Your task to perform on an android device: toggle priority inbox in the gmail app Image 0: 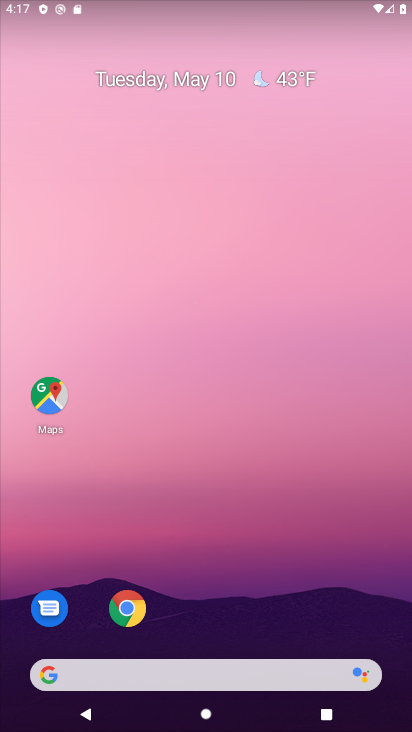
Step 0: drag from (251, 603) to (62, 2)
Your task to perform on an android device: toggle priority inbox in the gmail app Image 1: 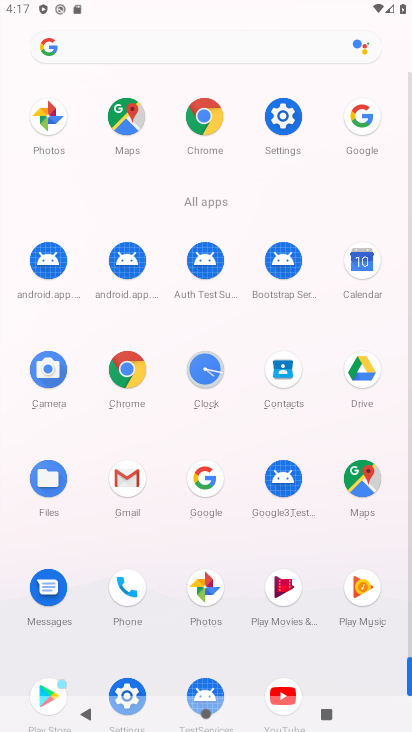
Step 1: click (127, 484)
Your task to perform on an android device: toggle priority inbox in the gmail app Image 2: 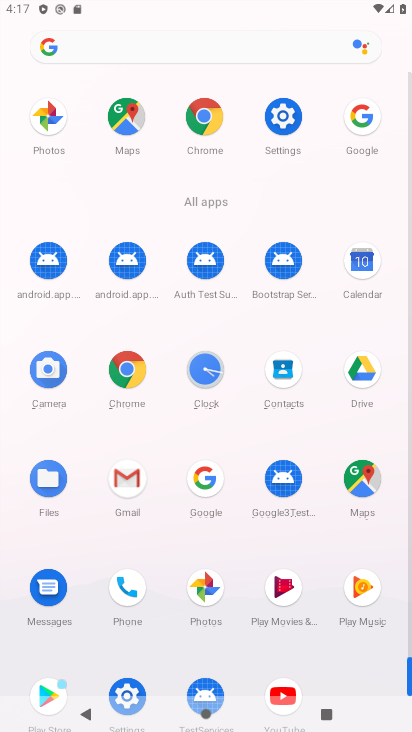
Step 2: click (127, 484)
Your task to perform on an android device: toggle priority inbox in the gmail app Image 3: 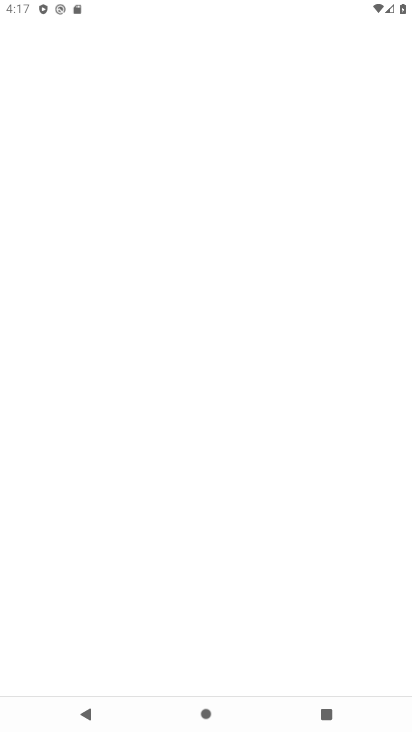
Step 3: click (124, 481)
Your task to perform on an android device: toggle priority inbox in the gmail app Image 4: 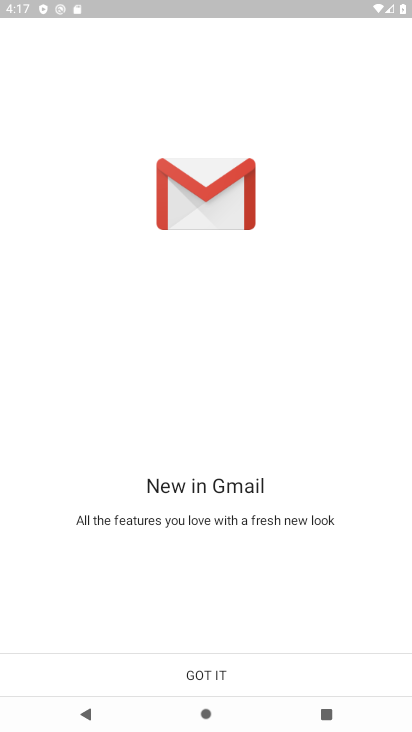
Step 4: click (212, 658)
Your task to perform on an android device: toggle priority inbox in the gmail app Image 5: 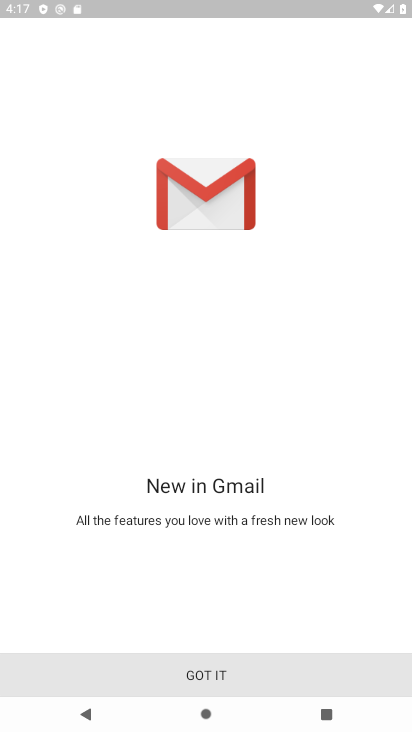
Step 5: click (211, 670)
Your task to perform on an android device: toggle priority inbox in the gmail app Image 6: 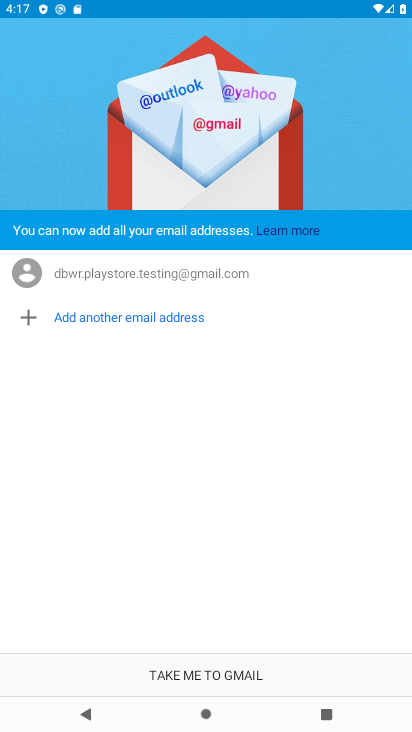
Step 6: click (211, 670)
Your task to perform on an android device: toggle priority inbox in the gmail app Image 7: 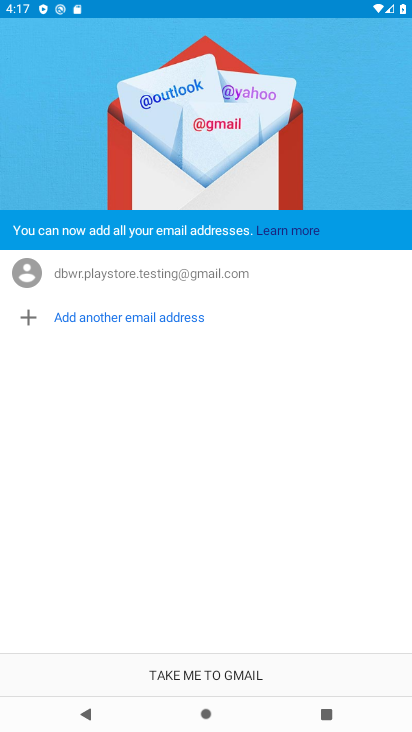
Step 7: click (212, 671)
Your task to perform on an android device: toggle priority inbox in the gmail app Image 8: 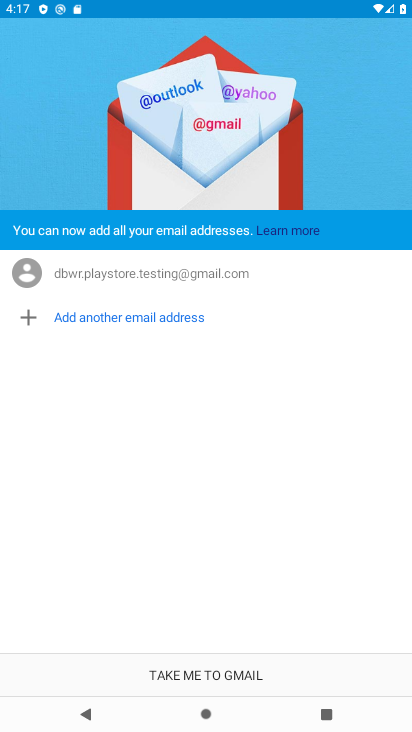
Step 8: click (213, 671)
Your task to perform on an android device: toggle priority inbox in the gmail app Image 9: 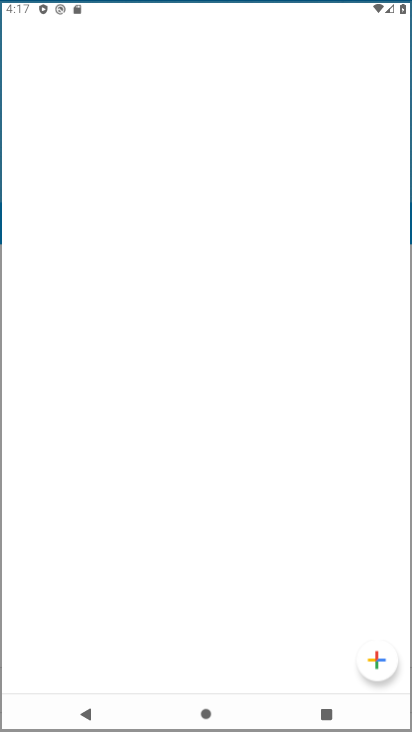
Step 9: click (213, 671)
Your task to perform on an android device: toggle priority inbox in the gmail app Image 10: 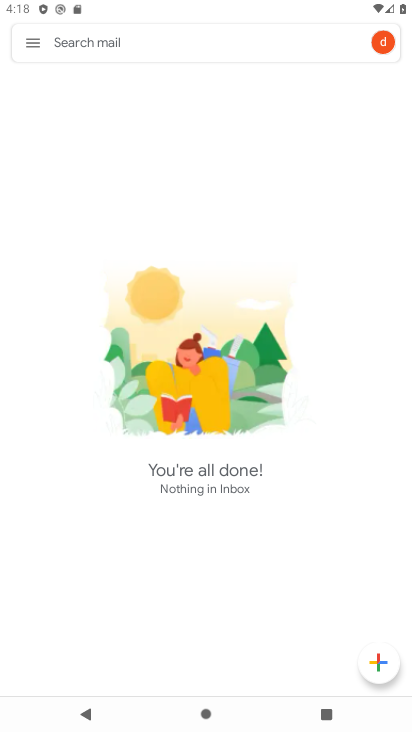
Step 10: click (208, 449)
Your task to perform on an android device: toggle priority inbox in the gmail app Image 11: 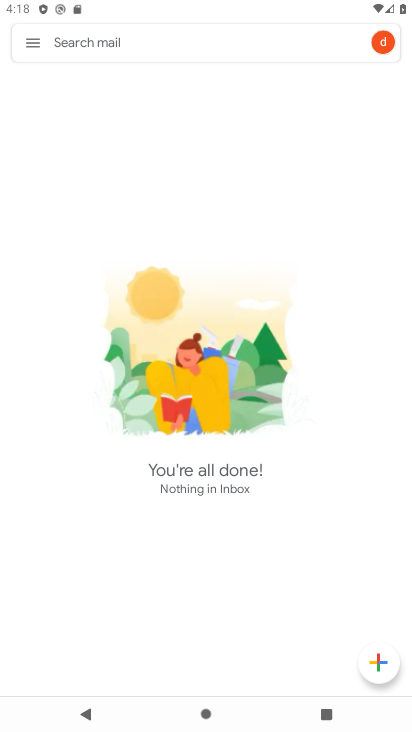
Step 11: click (206, 466)
Your task to perform on an android device: toggle priority inbox in the gmail app Image 12: 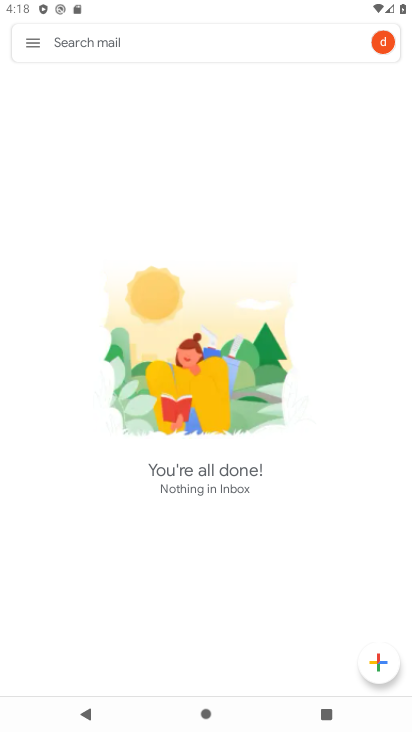
Step 12: click (205, 468)
Your task to perform on an android device: toggle priority inbox in the gmail app Image 13: 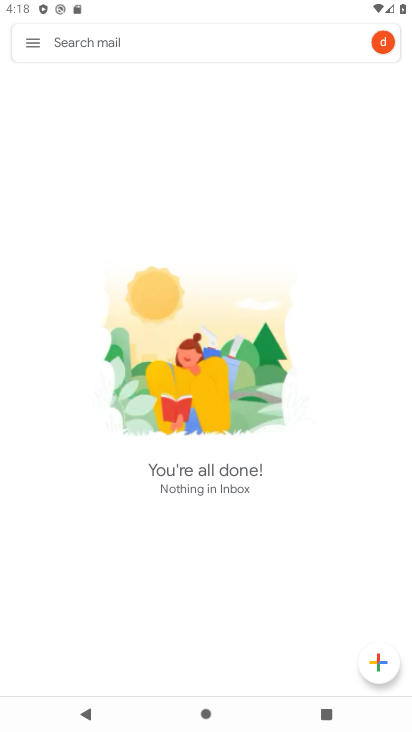
Step 13: click (205, 468)
Your task to perform on an android device: toggle priority inbox in the gmail app Image 14: 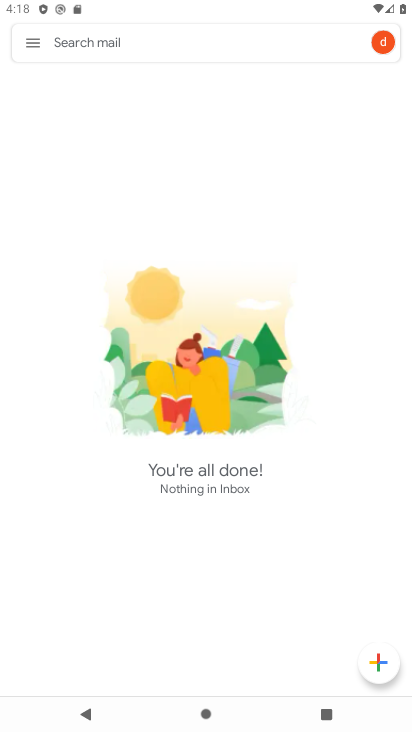
Step 14: click (205, 468)
Your task to perform on an android device: toggle priority inbox in the gmail app Image 15: 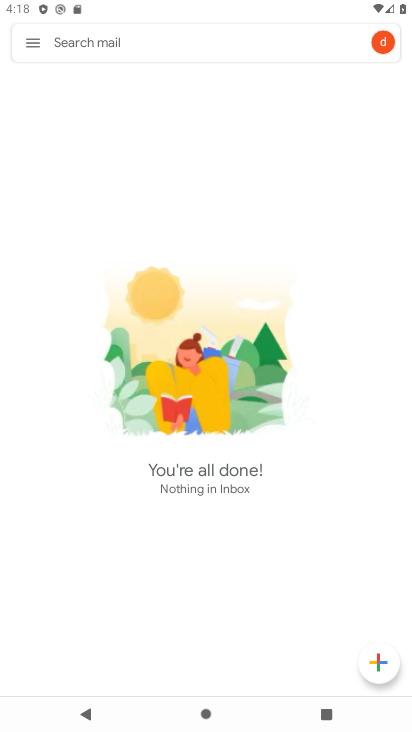
Step 15: click (206, 468)
Your task to perform on an android device: toggle priority inbox in the gmail app Image 16: 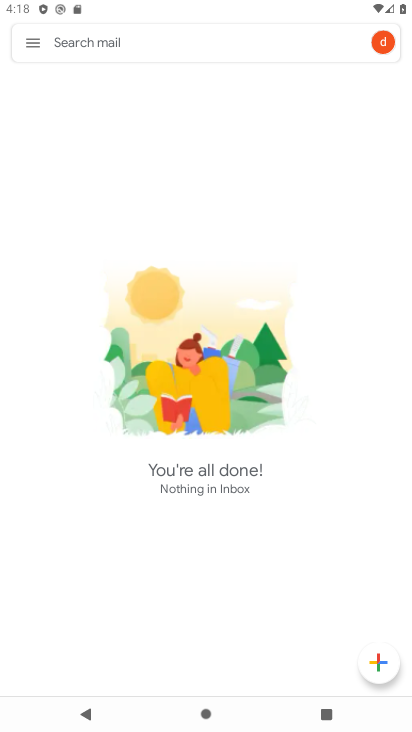
Step 16: click (31, 46)
Your task to perform on an android device: toggle priority inbox in the gmail app Image 17: 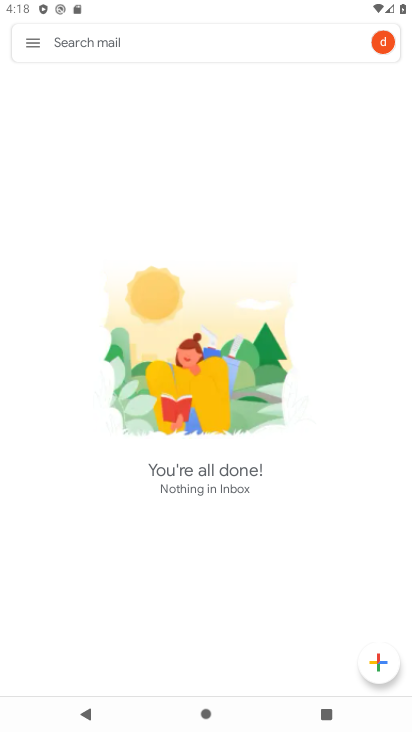
Step 17: click (31, 48)
Your task to perform on an android device: toggle priority inbox in the gmail app Image 18: 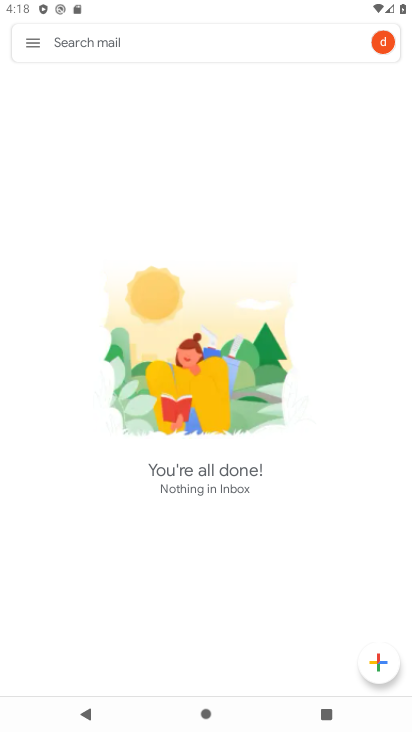
Step 18: click (32, 49)
Your task to perform on an android device: toggle priority inbox in the gmail app Image 19: 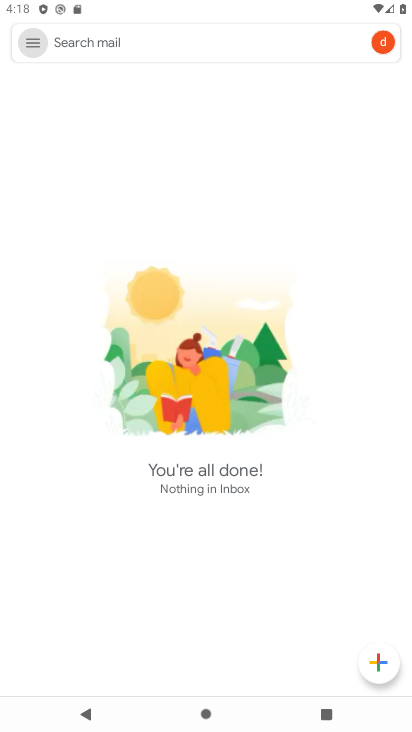
Step 19: click (32, 50)
Your task to perform on an android device: toggle priority inbox in the gmail app Image 20: 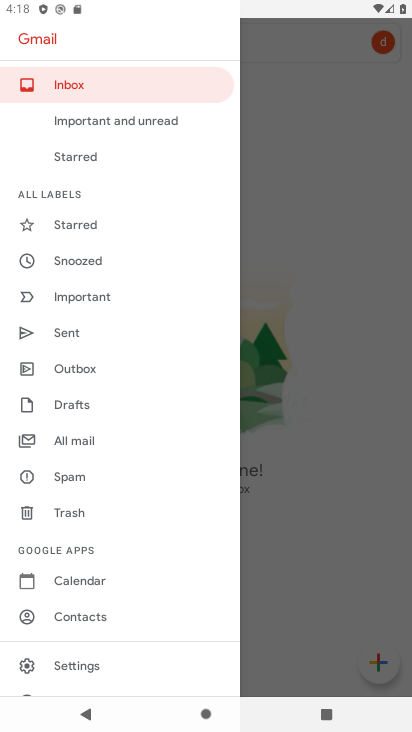
Step 20: click (72, 668)
Your task to perform on an android device: toggle priority inbox in the gmail app Image 21: 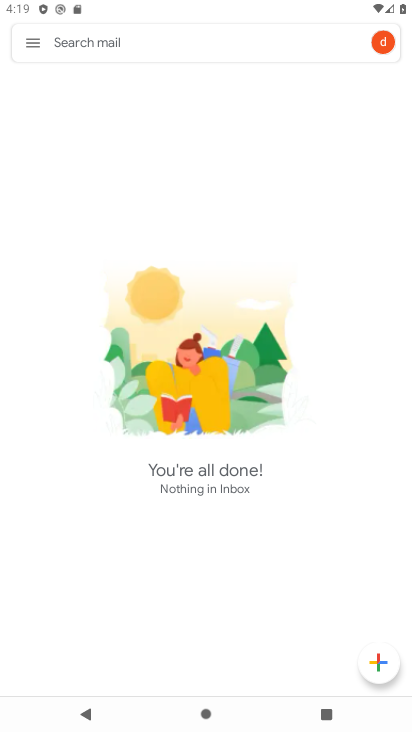
Step 21: click (71, 668)
Your task to perform on an android device: toggle priority inbox in the gmail app Image 22: 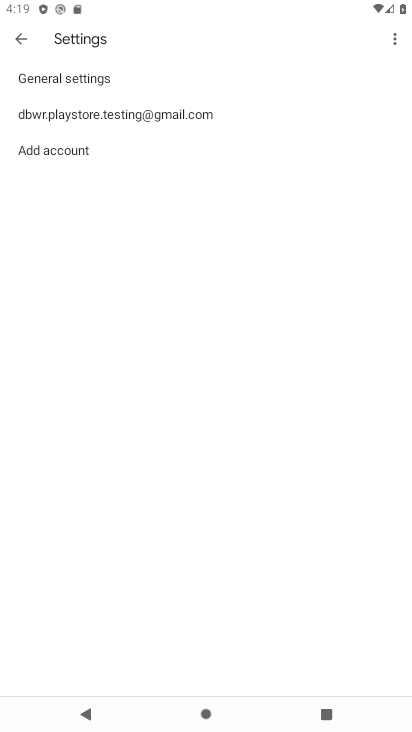
Step 22: click (108, 113)
Your task to perform on an android device: toggle priority inbox in the gmail app Image 23: 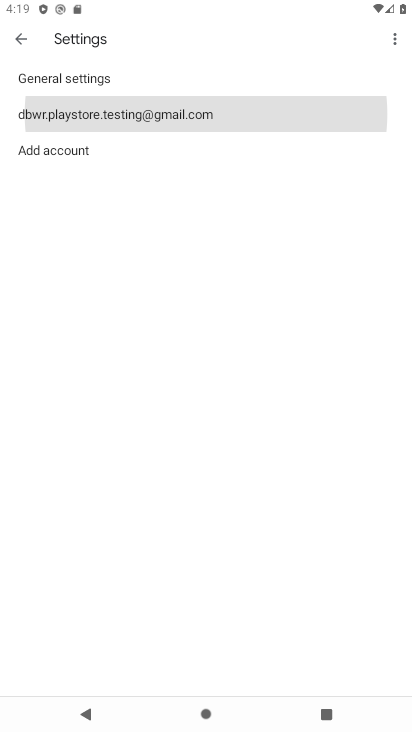
Step 23: click (111, 112)
Your task to perform on an android device: toggle priority inbox in the gmail app Image 24: 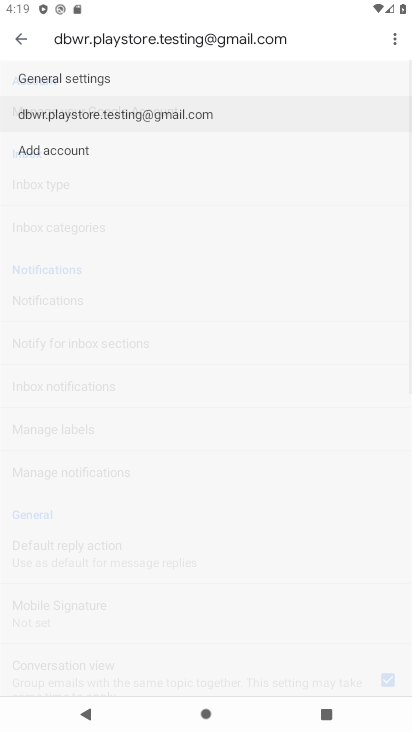
Step 24: click (111, 112)
Your task to perform on an android device: toggle priority inbox in the gmail app Image 25: 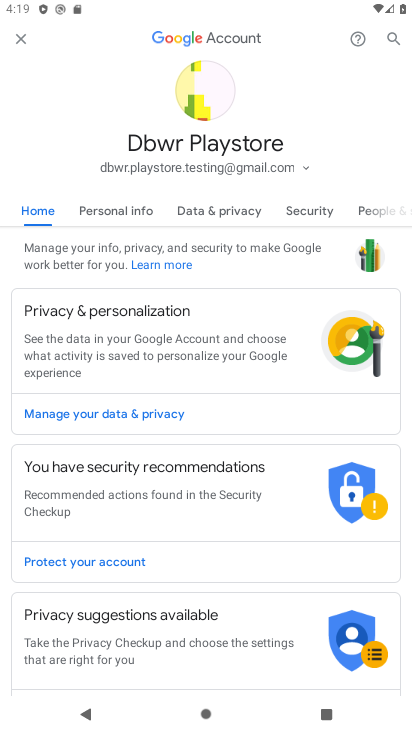
Step 25: drag from (165, 410) to (177, 493)
Your task to perform on an android device: toggle priority inbox in the gmail app Image 26: 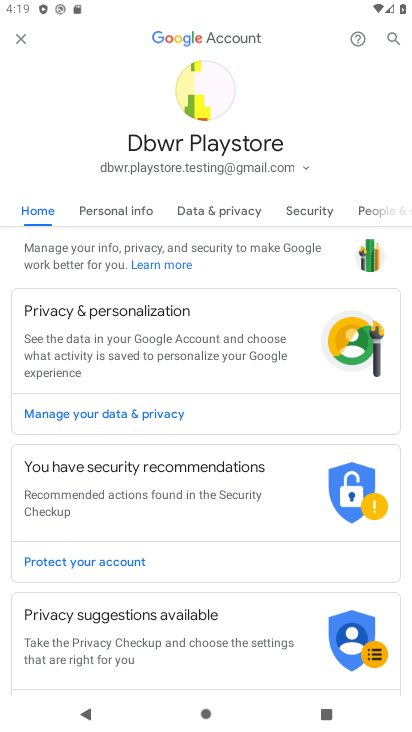
Step 26: drag from (156, 371) to (122, 163)
Your task to perform on an android device: toggle priority inbox in the gmail app Image 27: 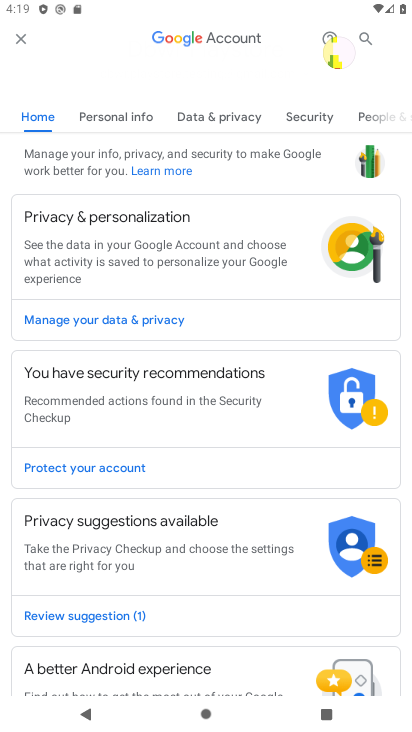
Step 27: drag from (153, 397) to (145, 154)
Your task to perform on an android device: toggle priority inbox in the gmail app Image 28: 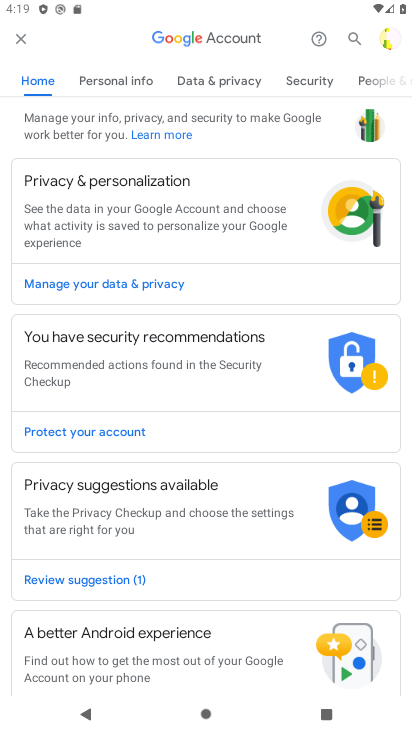
Step 28: drag from (122, 419) to (101, 171)
Your task to perform on an android device: toggle priority inbox in the gmail app Image 29: 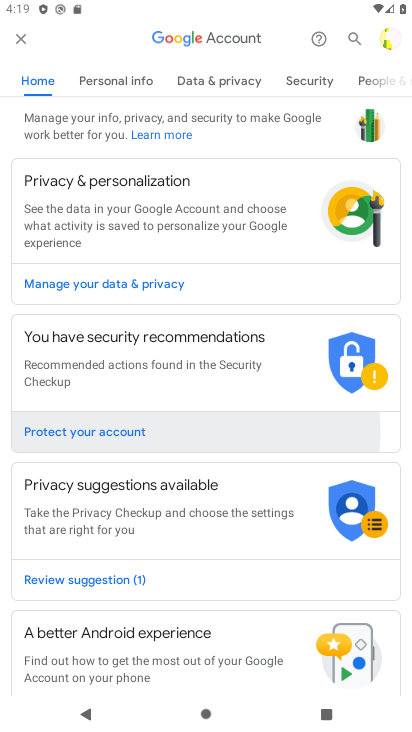
Step 29: drag from (176, 466) to (155, 275)
Your task to perform on an android device: toggle priority inbox in the gmail app Image 30: 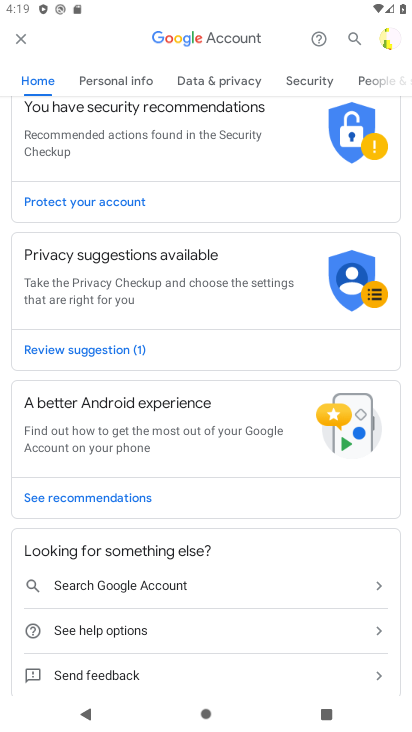
Step 30: drag from (154, 481) to (107, 153)
Your task to perform on an android device: toggle priority inbox in the gmail app Image 31: 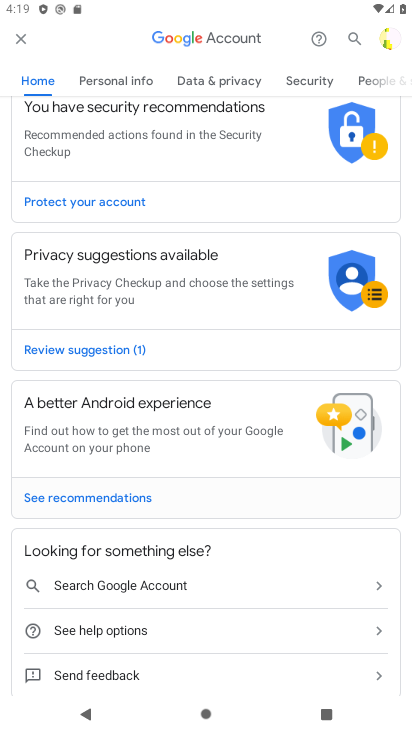
Step 31: drag from (207, 473) to (187, 174)
Your task to perform on an android device: toggle priority inbox in the gmail app Image 32: 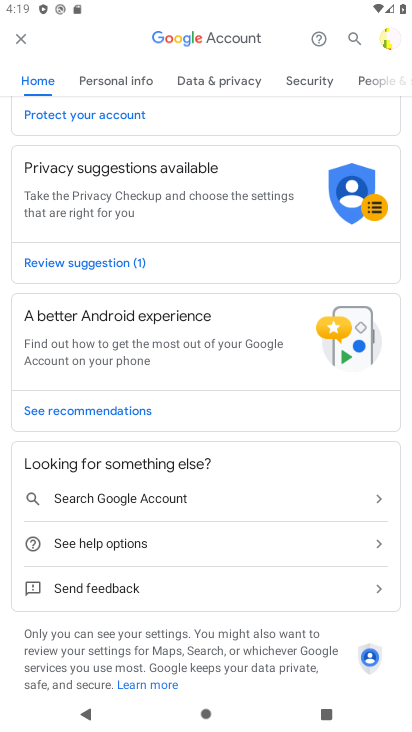
Step 32: drag from (226, 498) to (176, 238)
Your task to perform on an android device: toggle priority inbox in the gmail app Image 33: 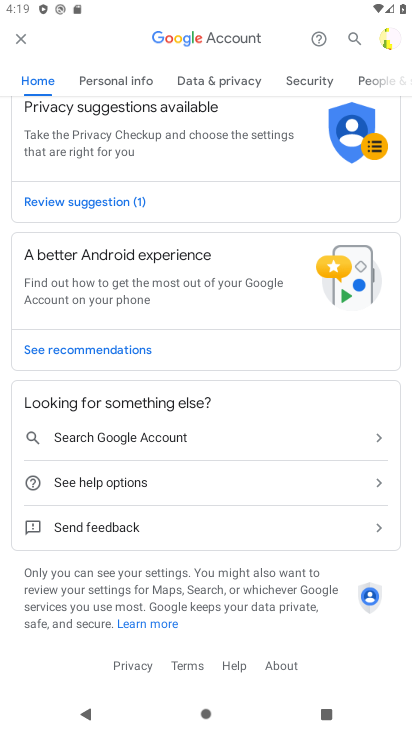
Step 33: click (14, 31)
Your task to perform on an android device: toggle priority inbox in the gmail app Image 34: 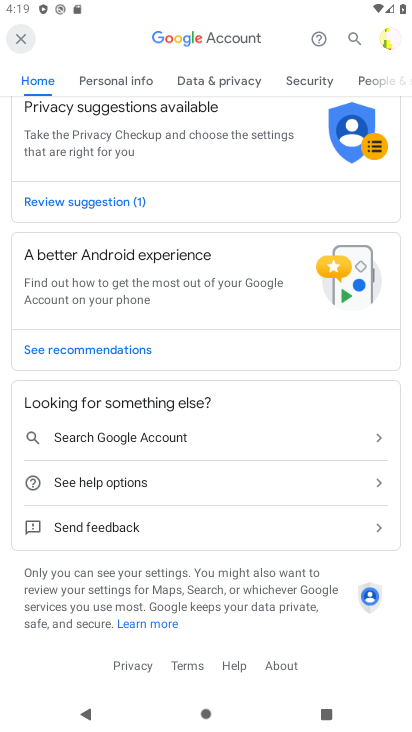
Step 34: click (19, 46)
Your task to perform on an android device: toggle priority inbox in the gmail app Image 35: 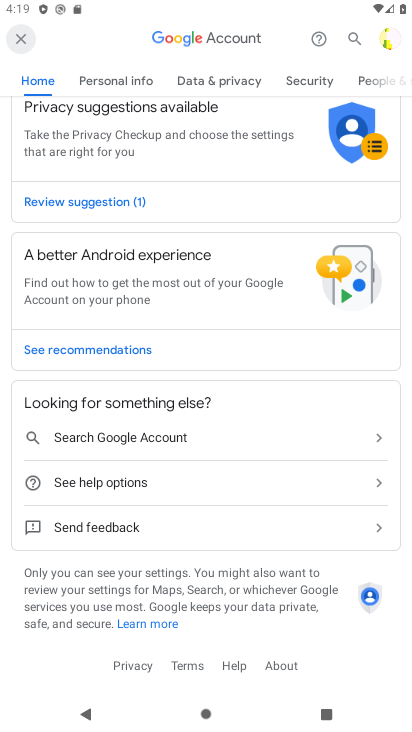
Step 35: click (19, 45)
Your task to perform on an android device: toggle priority inbox in the gmail app Image 36: 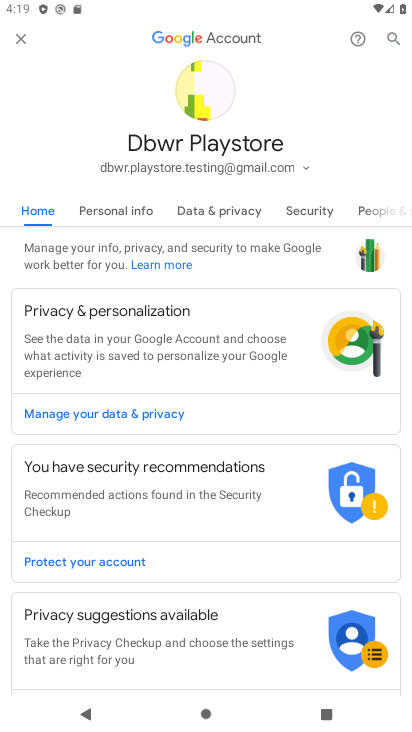
Step 36: click (20, 38)
Your task to perform on an android device: toggle priority inbox in the gmail app Image 37: 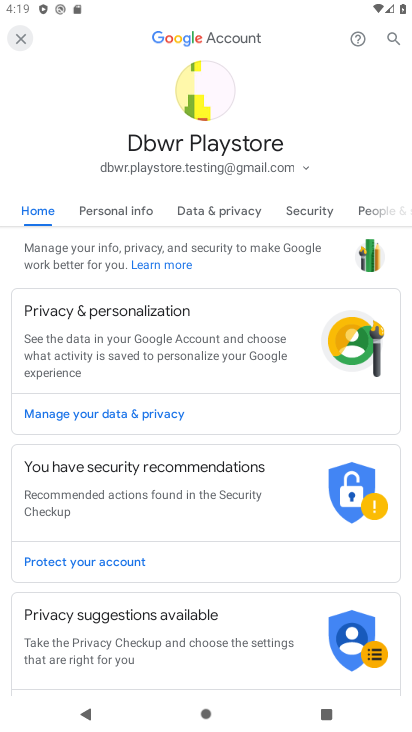
Step 37: click (20, 38)
Your task to perform on an android device: toggle priority inbox in the gmail app Image 38: 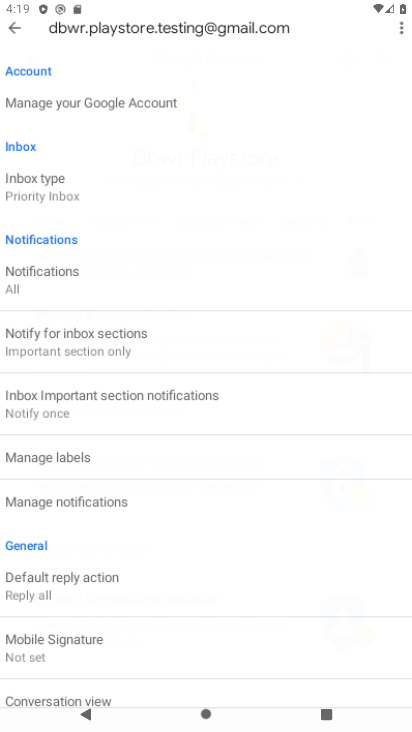
Step 38: click (14, 38)
Your task to perform on an android device: toggle priority inbox in the gmail app Image 39: 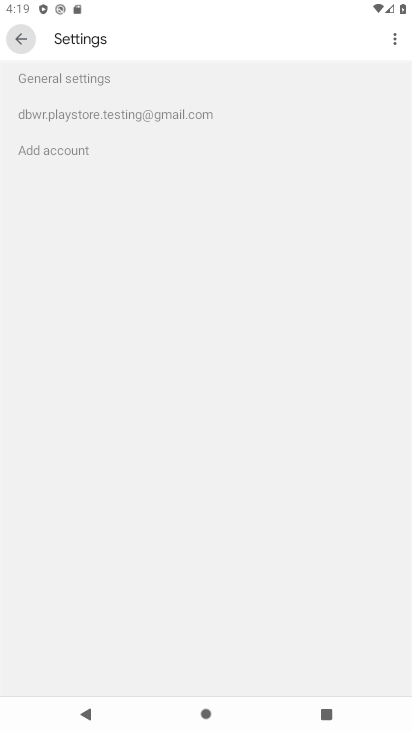
Step 39: click (14, 38)
Your task to perform on an android device: toggle priority inbox in the gmail app Image 40: 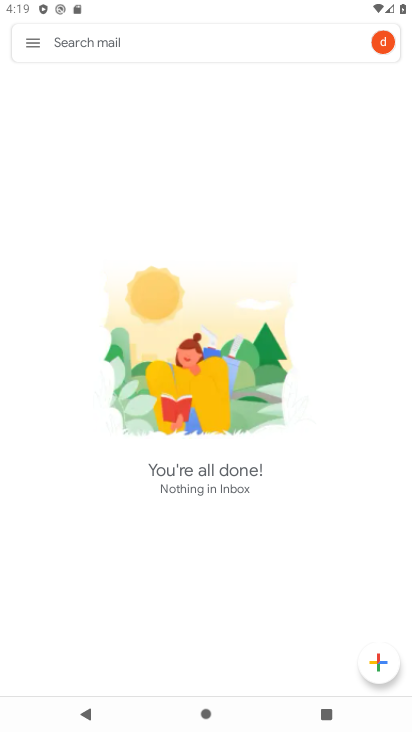
Step 40: drag from (33, 37) to (21, 217)
Your task to perform on an android device: toggle priority inbox in the gmail app Image 41: 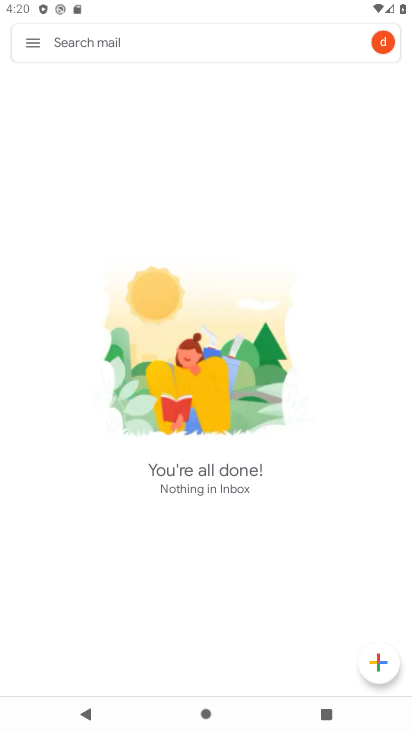
Step 41: click (35, 46)
Your task to perform on an android device: toggle priority inbox in the gmail app Image 42: 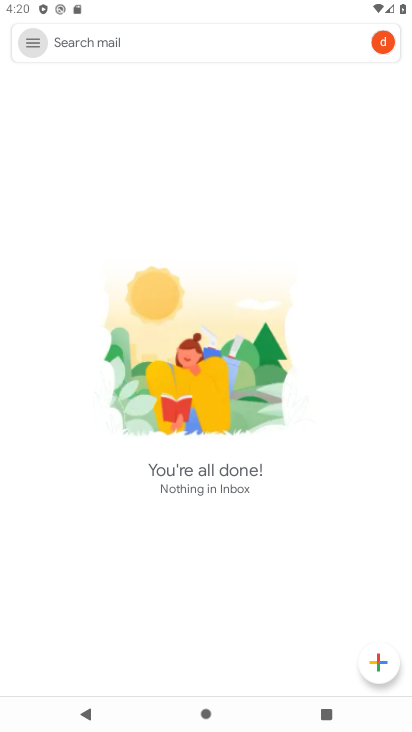
Step 42: click (35, 46)
Your task to perform on an android device: toggle priority inbox in the gmail app Image 43: 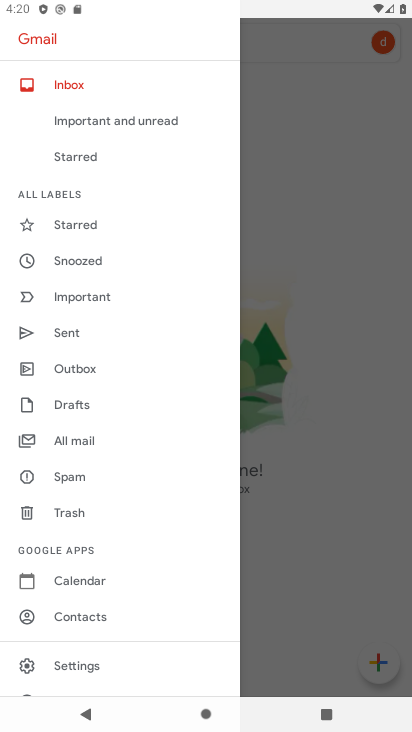
Step 43: click (80, 667)
Your task to perform on an android device: toggle priority inbox in the gmail app Image 44: 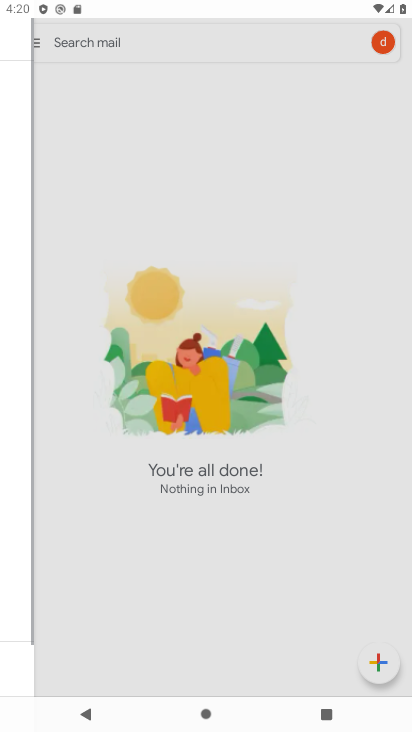
Step 44: click (78, 669)
Your task to perform on an android device: toggle priority inbox in the gmail app Image 45: 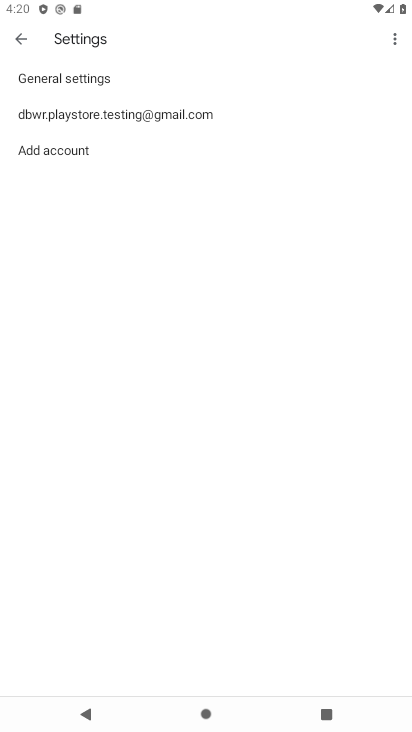
Step 45: click (81, 114)
Your task to perform on an android device: toggle priority inbox in the gmail app Image 46: 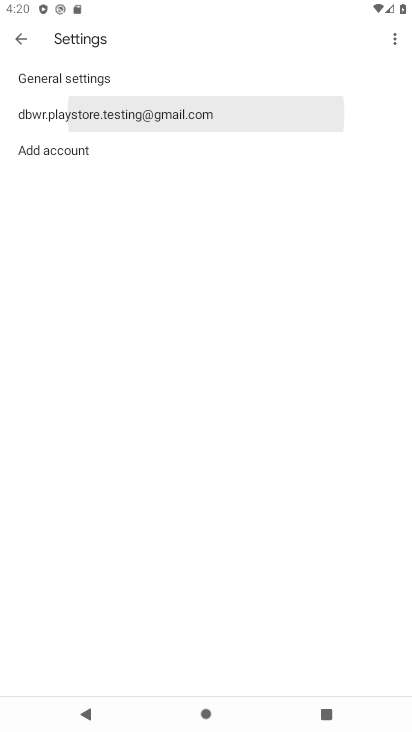
Step 46: click (81, 114)
Your task to perform on an android device: toggle priority inbox in the gmail app Image 47: 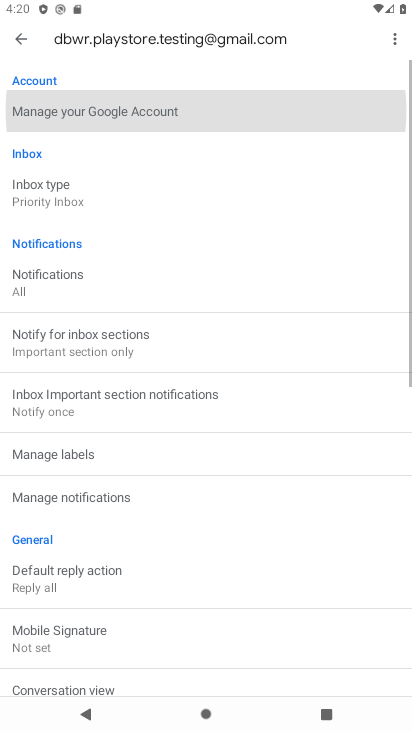
Step 47: click (81, 114)
Your task to perform on an android device: toggle priority inbox in the gmail app Image 48: 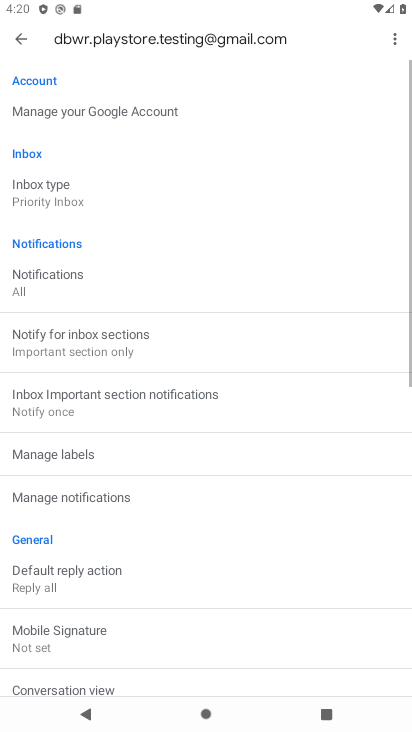
Step 48: click (82, 113)
Your task to perform on an android device: toggle priority inbox in the gmail app Image 49: 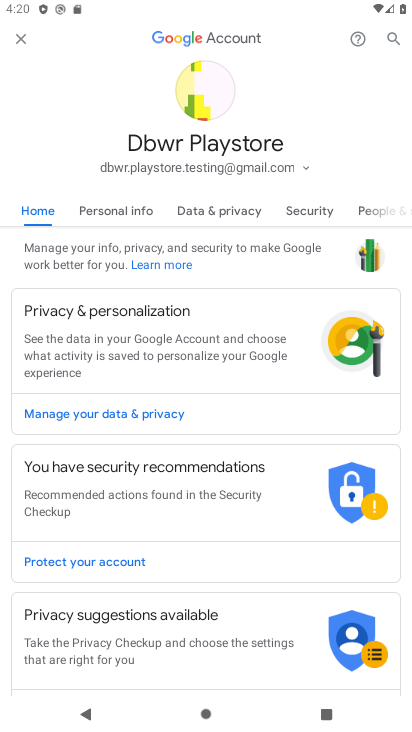
Step 49: click (30, 42)
Your task to perform on an android device: toggle priority inbox in the gmail app Image 50: 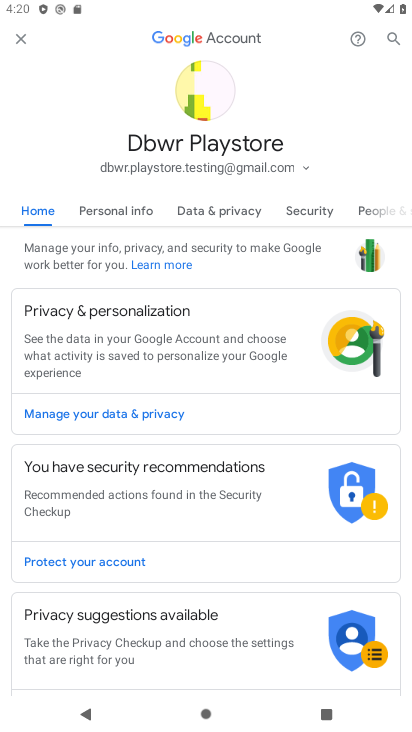
Step 50: click (22, 37)
Your task to perform on an android device: toggle priority inbox in the gmail app Image 51: 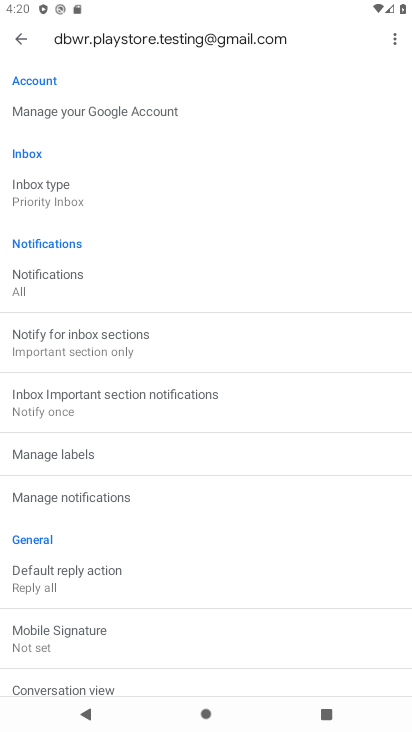
Step 51: drag from (106, 559) to (61, 230)
Your task to perform on an android device: toggle priority inbox in the gmail app Image 52: 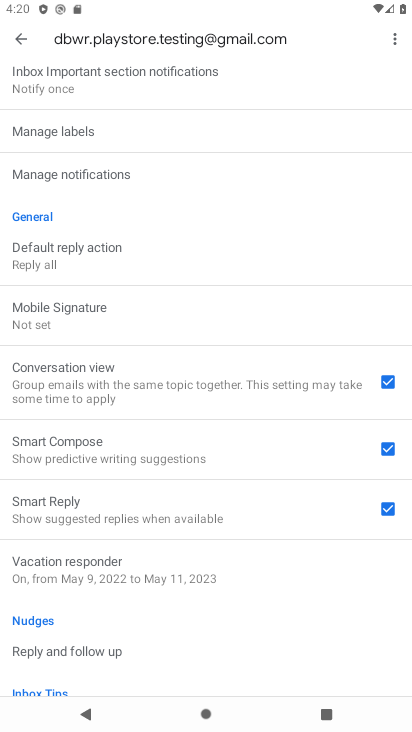
Step 52: drag from (65, 256) to (99, 675)
Your task to perform on an android device: toggle priority inbox in the gmail app Image 53: 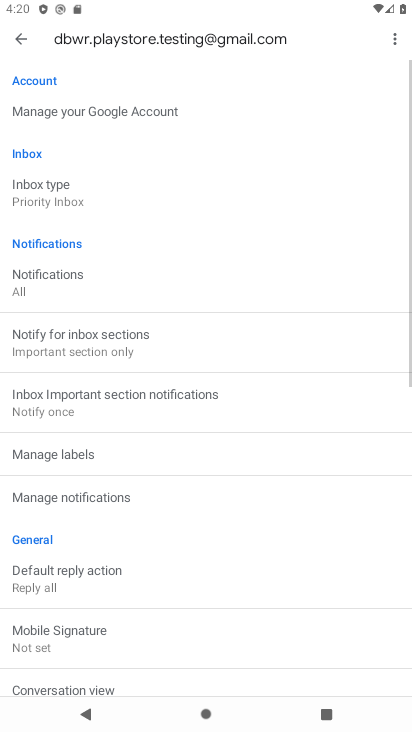
Step 53: click (46, 193)
Your task to perform on an android device: toggle priority inbox in the gmail app Image 54: 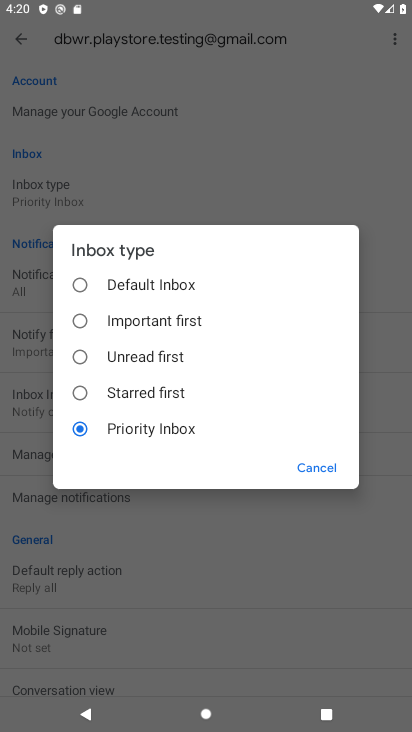
Step 54: click (336, 456)
Your task to perform on an android device: toggle priority inbox in the gmail app Image 55: 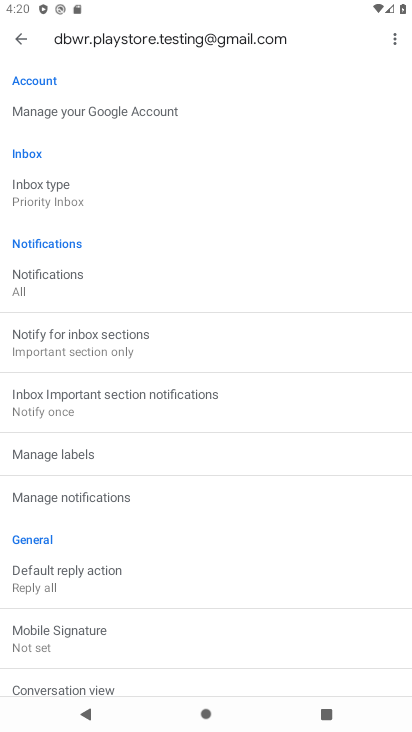
Step 55: task complete